Your task to perform on an android device: check the backup settings in the google photos Image 0: 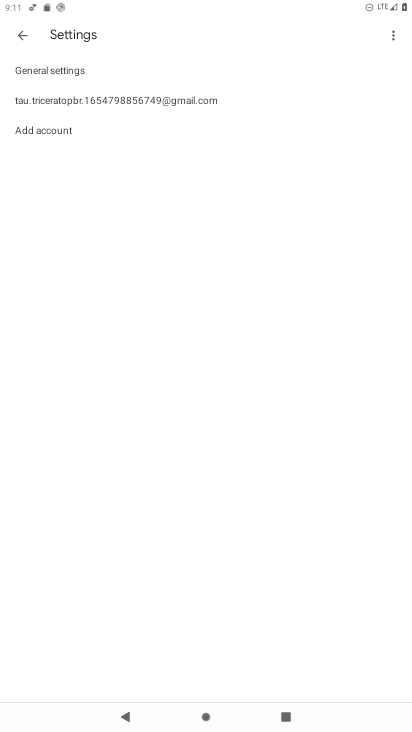
Step 0: press home button
Your task to perform on an android device: check the backup settings in the google photos Image 1: 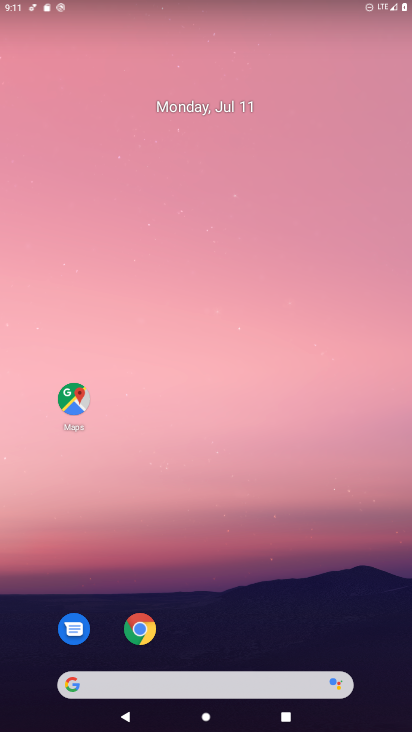
Step 1: drag from (216, 649) to (276, 108)
Your task to perform on an android device: check the backup settings in the google photos Image 2: 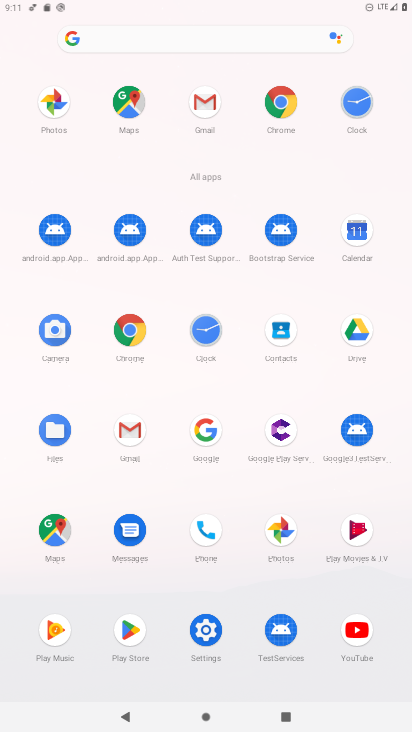
Step 2: click (53, 107)
Your task to perform on an android device: check the backup settings in the google photos Image 3: 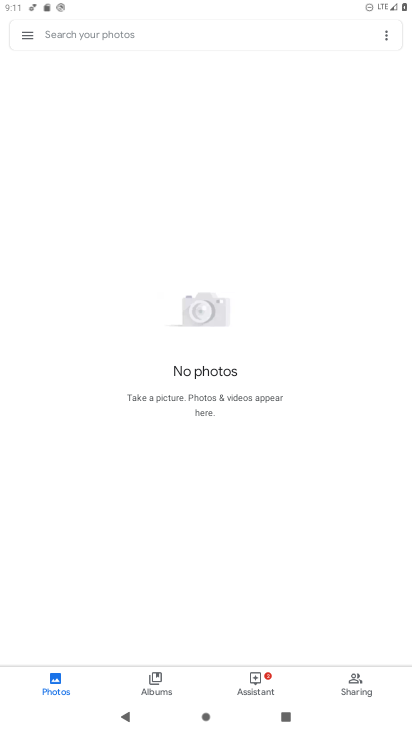
Step 3: click (33, 44)
Your task to perform on an android device: check the backup settings in the google photos Image 4: 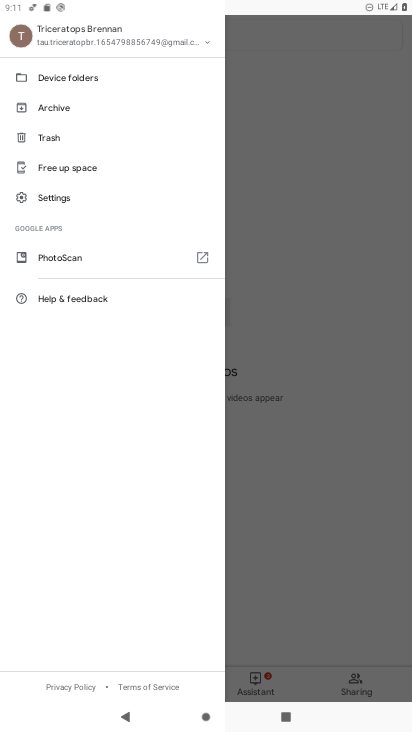
Step 4: click (93, 190)
Your task to perform on an android device: check the backup settings in the google photos Image 5: 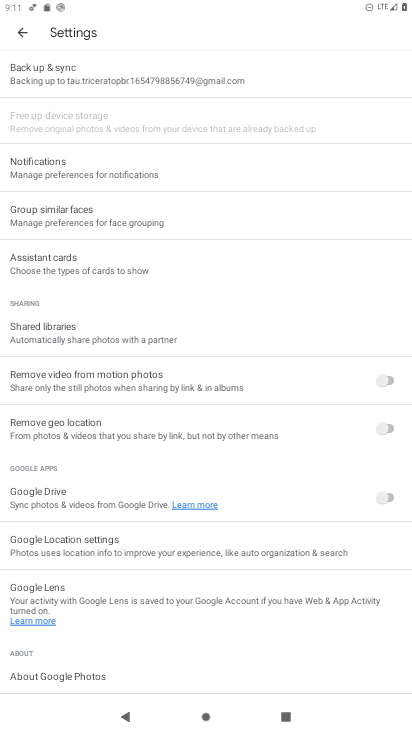
Step 5: click (126, 77)
Your task to perform on an android device: check the backup settings in the google photos Image 6: 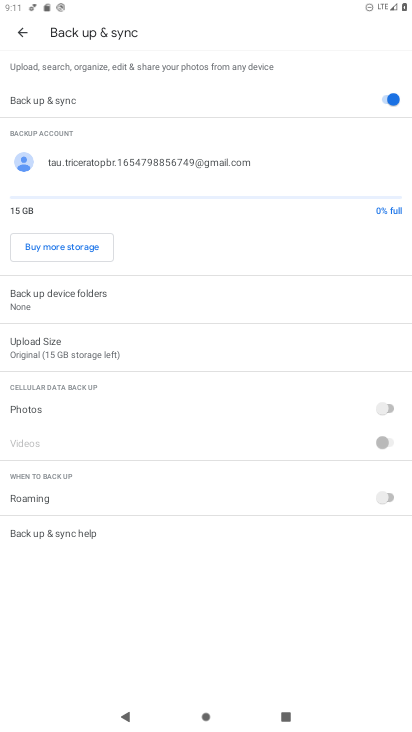
Step 6: task complete